Your task to perform on an android device: Open the phone app and click the voicemail tab. Image 0: 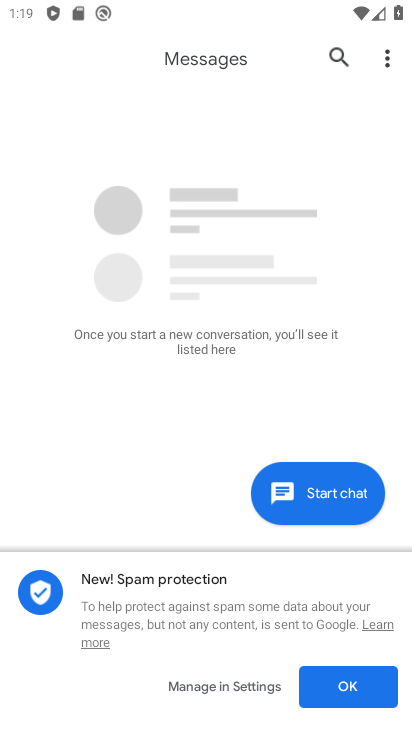
Step 0: press home button
Your task to perform on an android device: Open the phone app and click the voicemail tab. Image 1: 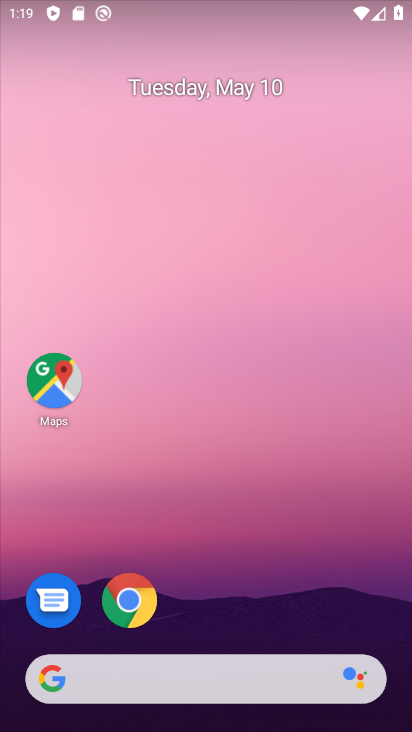
Step 1: drag from (216, 617) to (253, 119)
Your task to perform on an android device: Open the phone app and click the voicemail tab. Image 2: 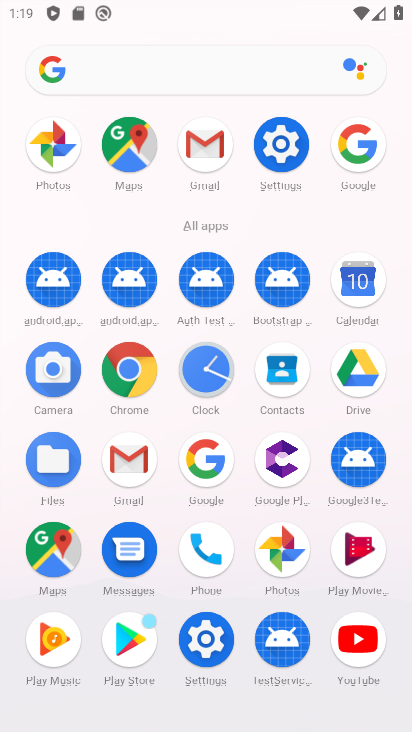
Step 2: click (205, 551)
Your task to perform on an android device: Open the phone app and click the voicemail tab. Image 3: 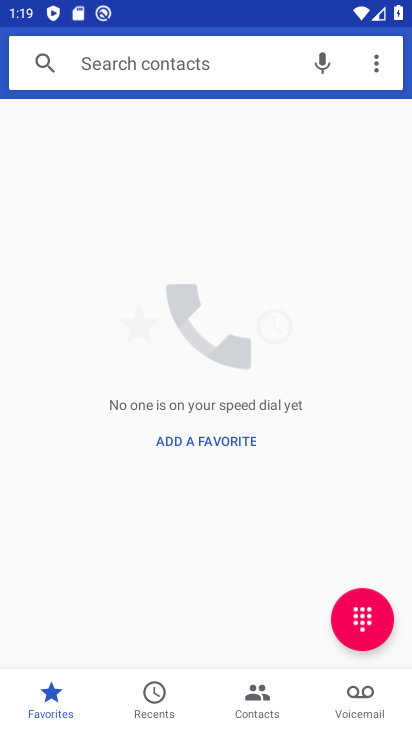
Step 3: click (363, 693)
Your task to perform on an android device: Open the phone app and click the voicemail tab. Image 4: 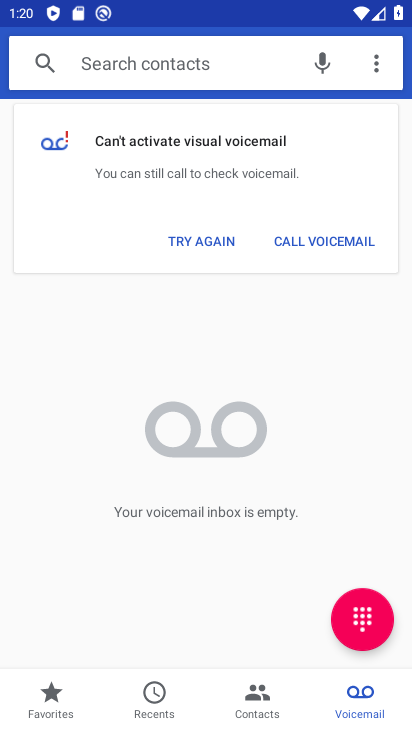
Step 4: task complete